Your task to perform on an android device: open app "Truecaller" Image 0: 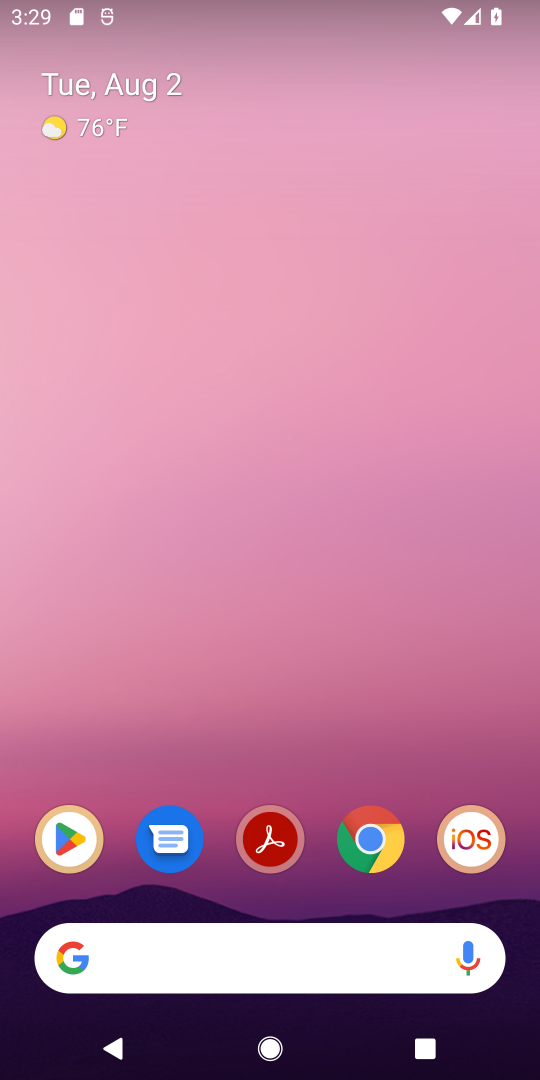
Step 0: drag from (205, 896) to (237, 185)
Your task to perform on an android device: open app "Truecaller" Image 1: 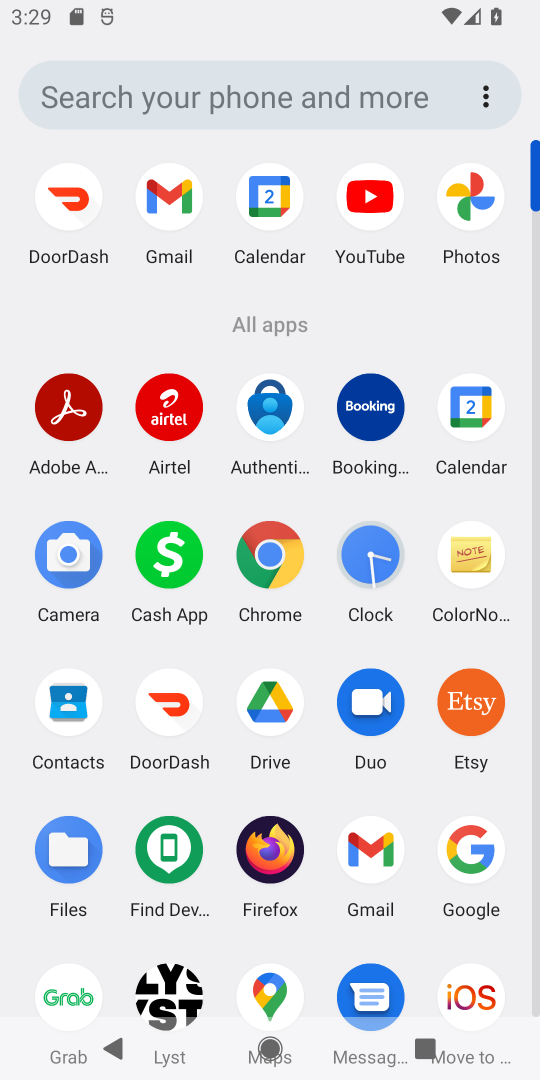
Step 1: click (259, 1075)
Your task to perform on an android device: open app "Truecaller" Image 2: 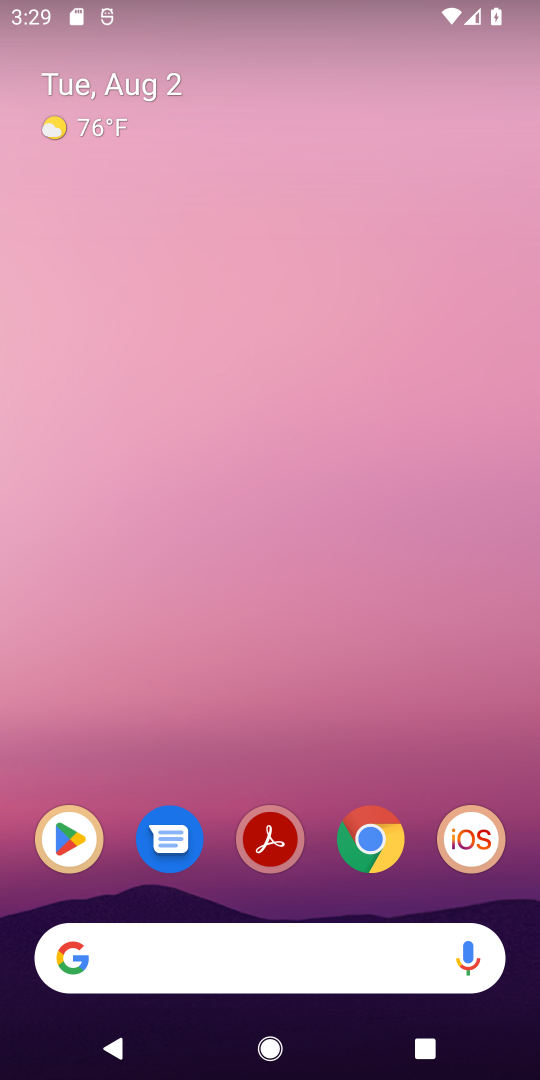
Step 2: click (45, 845)
Your task to perform on an android device: open app "Truecaller" Image 3: 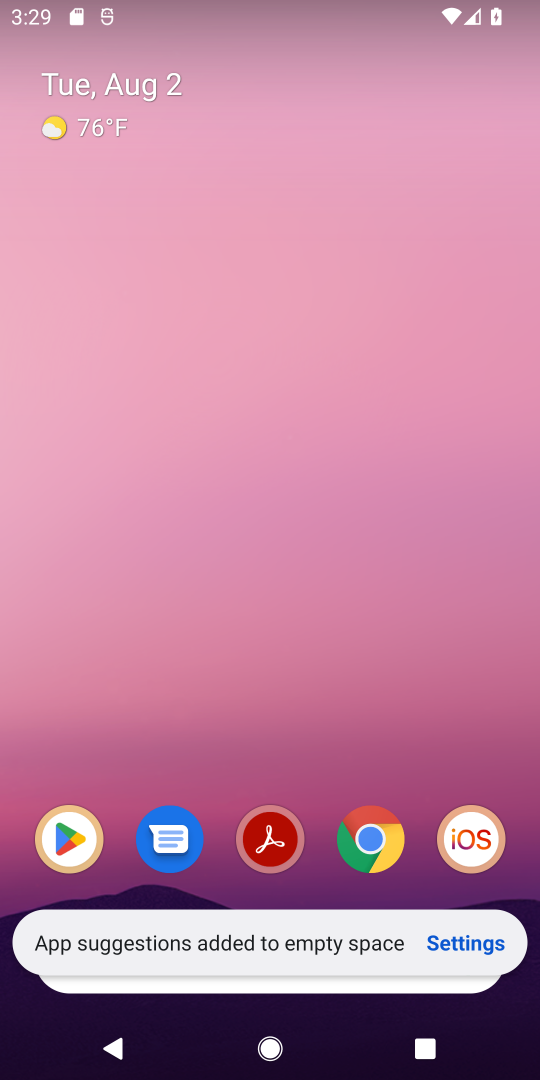
Step 3: click (62, 833)
Your task to perform on an android device: open app "Truecaller" Image 4: 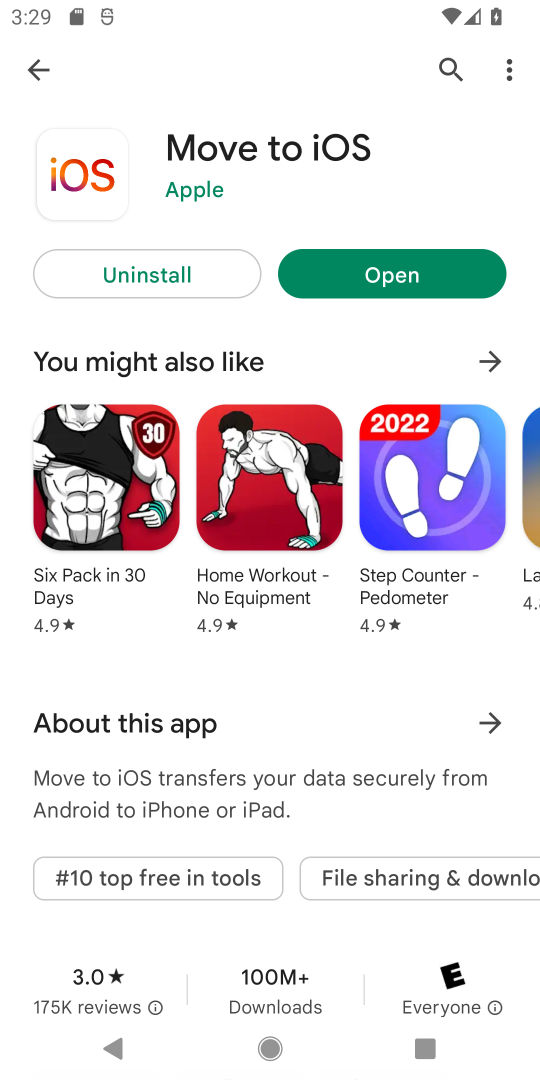
Step 4: click (445, 86)
Your task to perform on an android device: open app "Truecaller" Image 5: 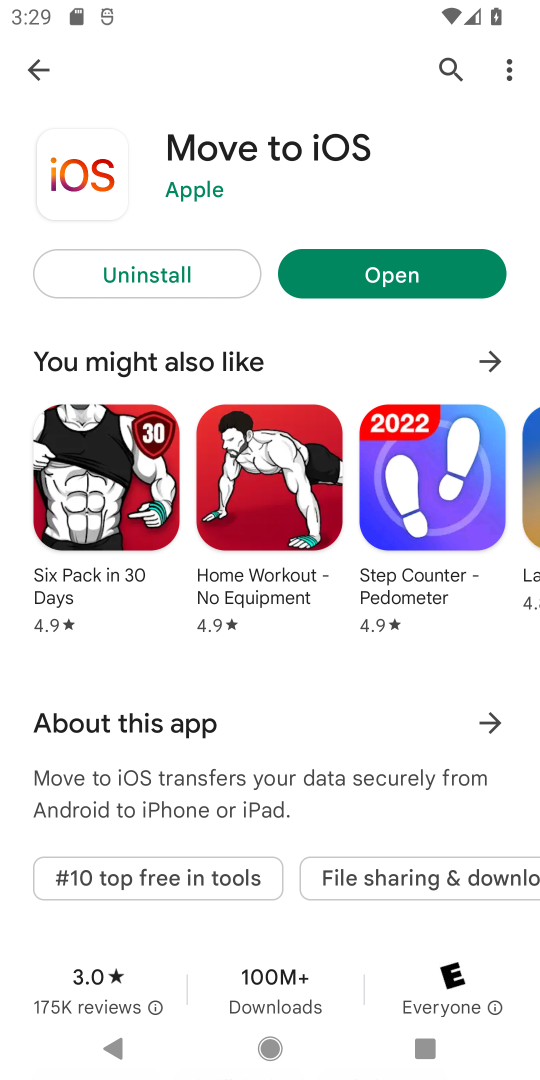
Step 5: click (452, 76)
Your task to perform on an android device: open app "Truecaller" Image 6: 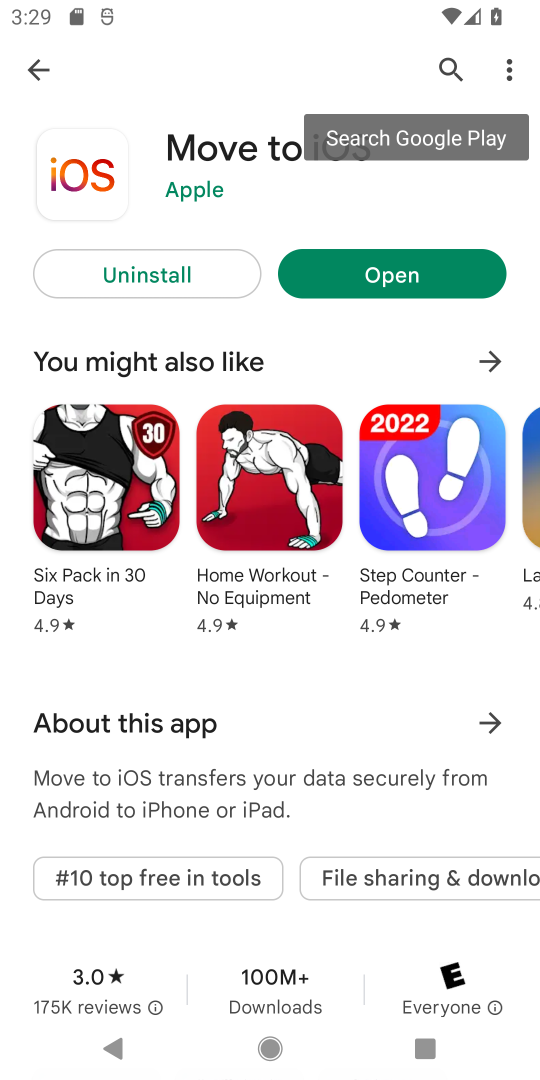
Step 6: click (452, 76)
Your task to perform on an android device: open app "Truecaller" Image 7: 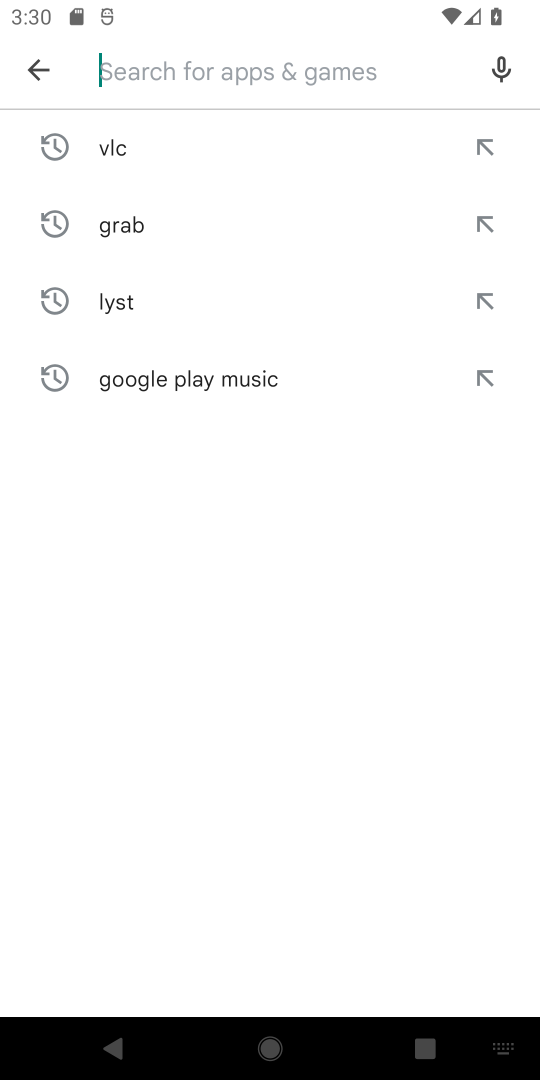
Step 7: type "truecaller"
Your task to perform on an android device: open app "Truecaller" Image 8: 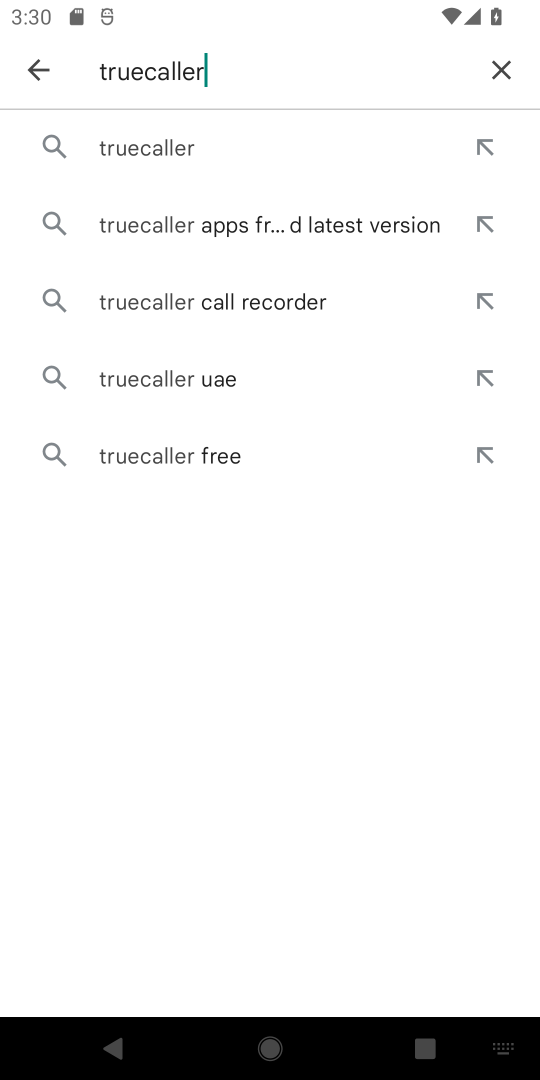
Step 8: click (304, 144)
Your task to perform on an android device: open app "Truecaller" Image 9: 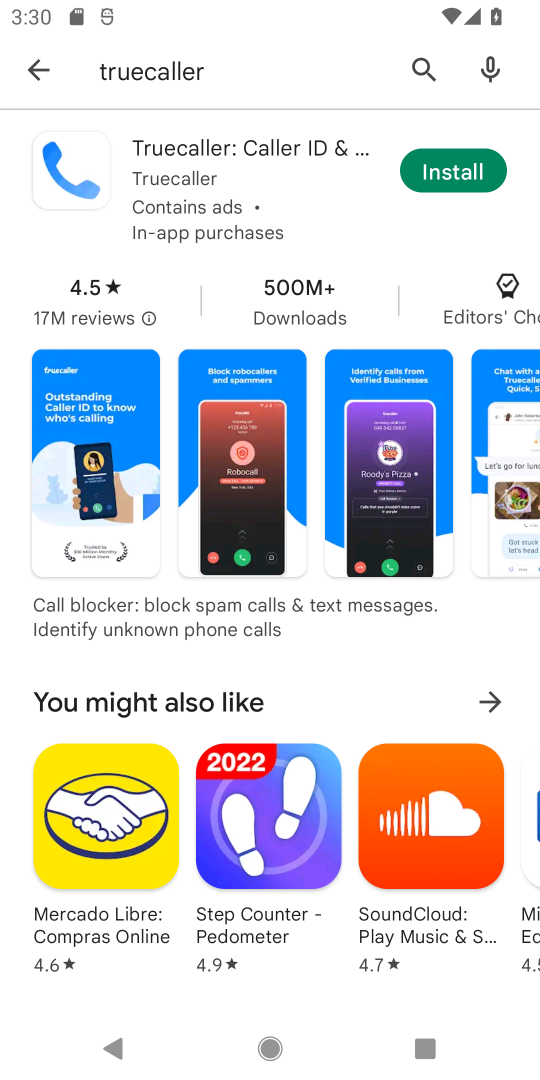
Step 9: click (409, 171)
Your task to perform on an android device: open app "Truecaller" Image 10: 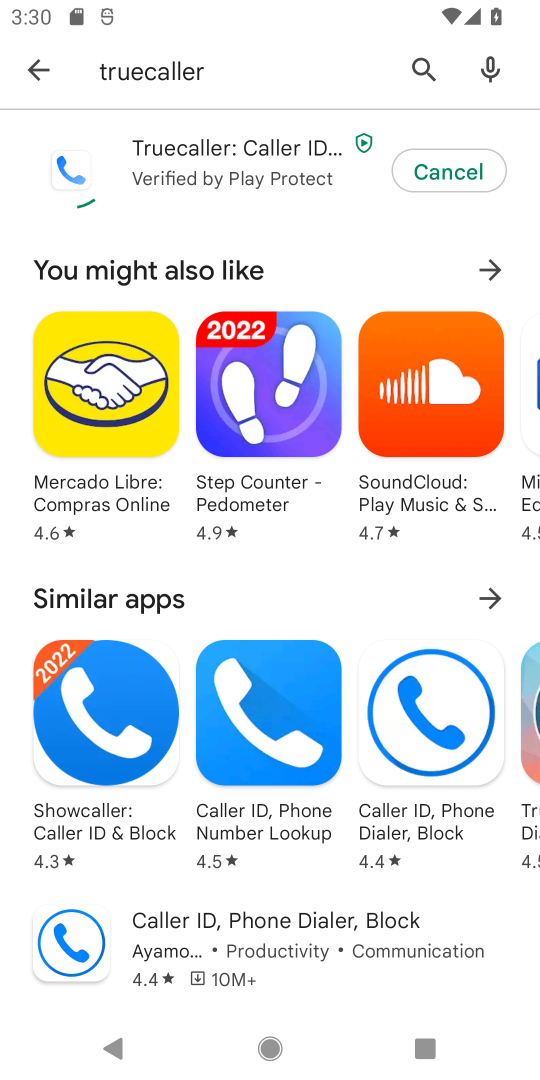
Step 10: task complete